Your task to perform on an android device: Search for Italian restaurants on Maps Image 0: 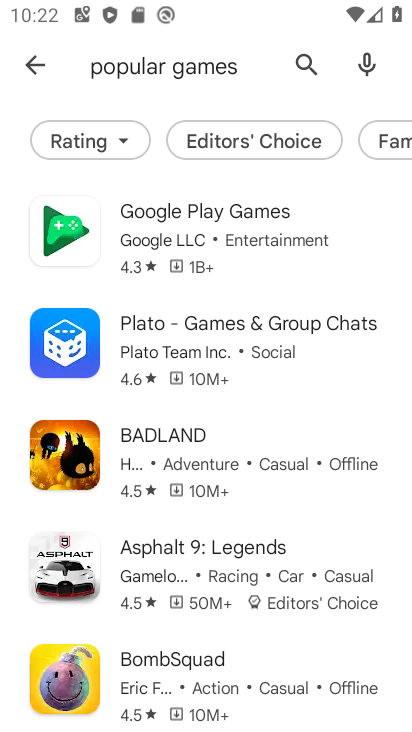
Step 0: press home button
Your task to perform on an android device: Search for Italian restaurants on Maps Image 1: 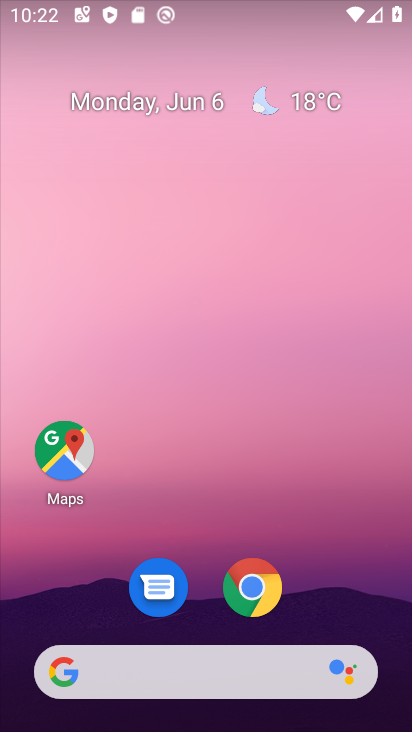
Step 1: click (66, 450)
Your task to perform on an android device: Search for Italian restaurants on Maps Image 2: 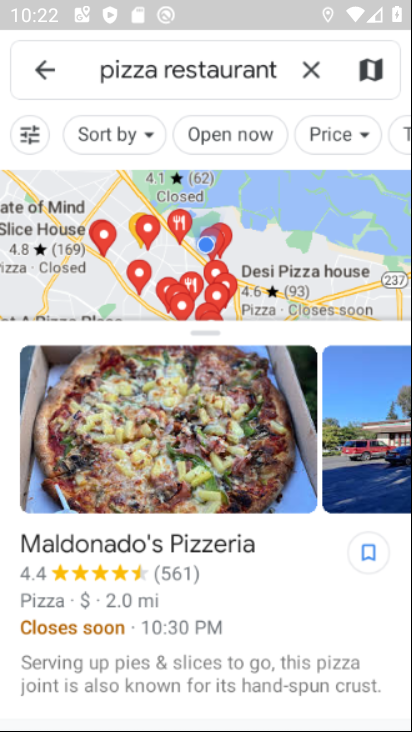
Step 2: click (300, 70)
Your task to perform on an android device: Search for Italian restaurants on Maps Image 3: 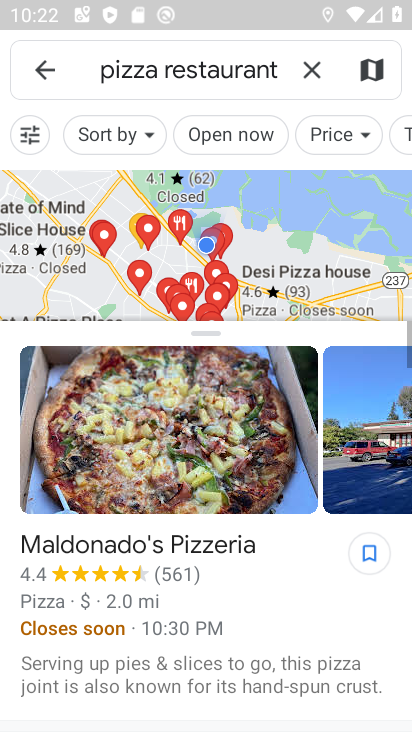
Step 3: click (300, 70)
Your task to perform on an android device: Search for Italian restaurants on Maps Image 4: 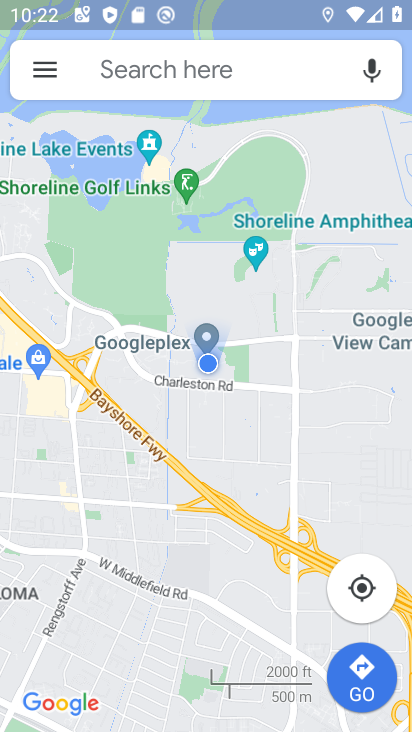
Step 4: click (225, 71)
Your task to perform on an android device: Search for Italian restaurants on Maps Image 5: 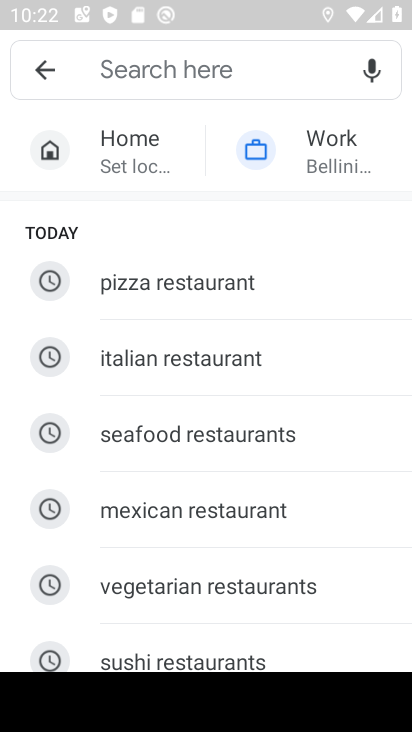
Step 5: click (214, 351)
Your task to perform on an android device: Search for Italian restaurants on Maps Image 6: 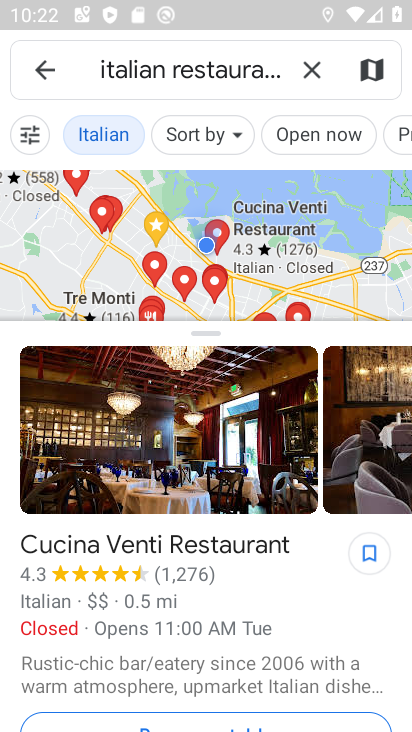
Step 6: task complete